Your task to perform on an android device: search for starred emails in the gmail app Image 0: 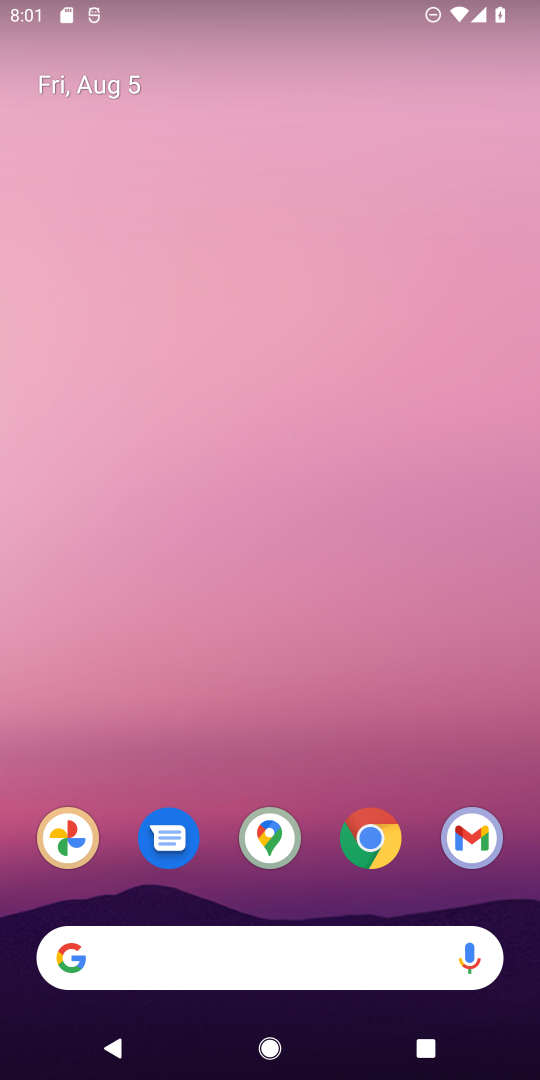
Step 0: press home button
Your task to perform on an android device: search for starred emails in the gmail app Image 1: 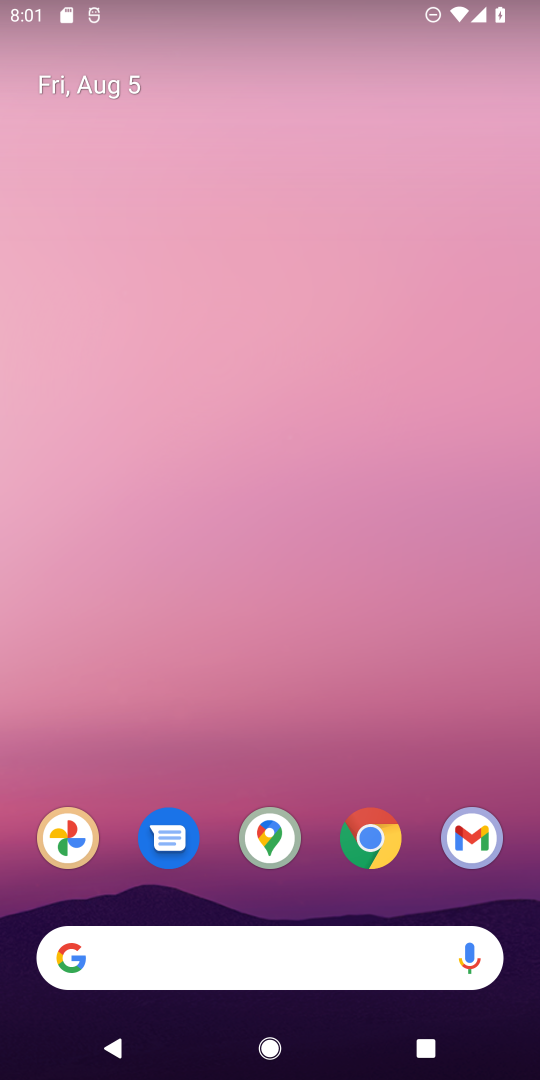
Step 1: drag from (243, 910) to (243, 516)
Your task to perform on an android device: search for starred emails in the gmail app Image 2: 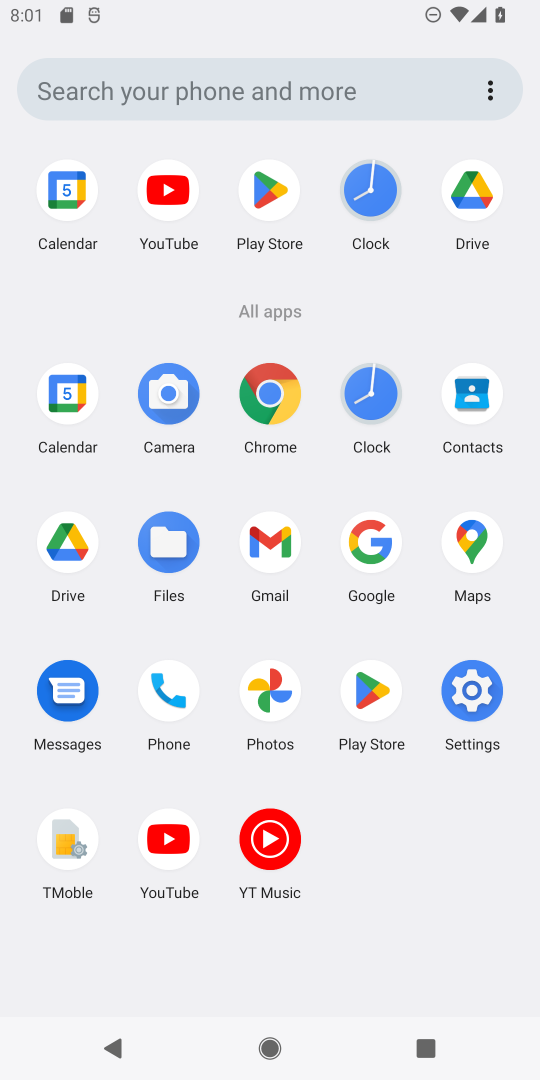
Step 2: click (255, 539)
Your task to perform on an android device: search for starred emails in the gmail app Image 3: 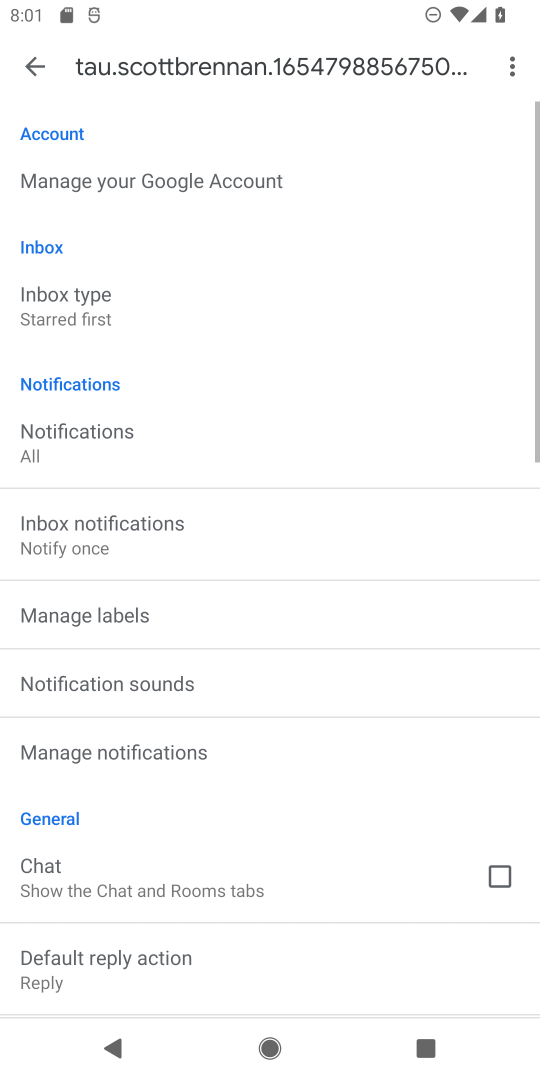
Step 3: click (37, 65)
Your task to perform on an android device: search for starred emails in the gmail app Image 4: 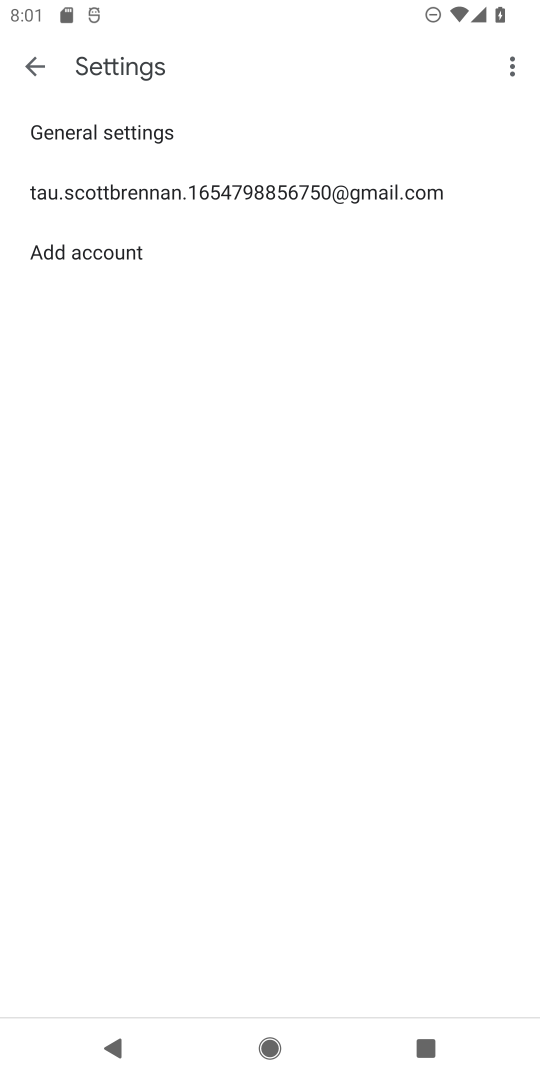
Step 4: click (37, 65)
Your task to perform on an android device: search for starred emails in the gmail app Image 5: 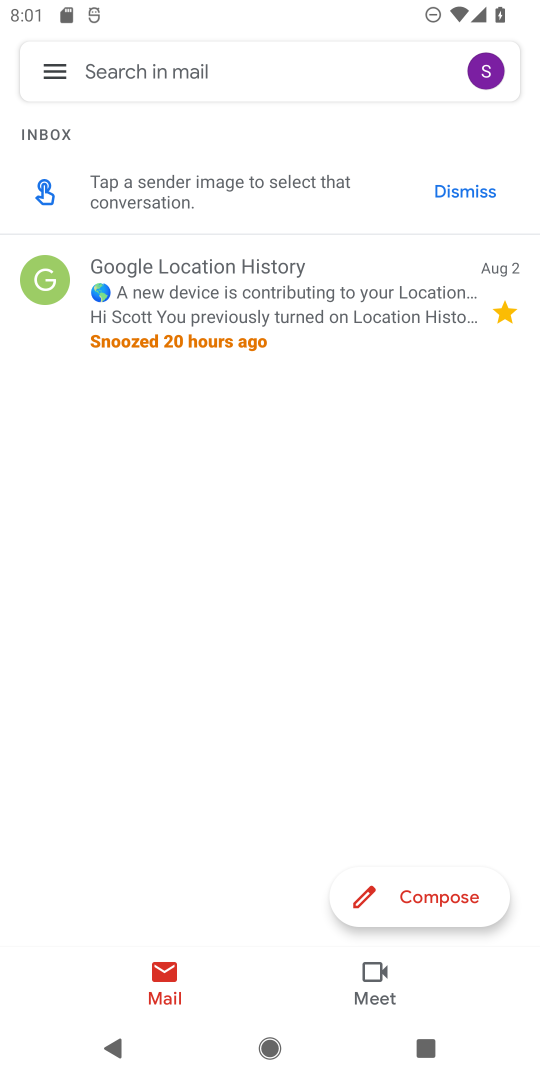
Step 5: click (45, 68)
Your task to perform on an android device: search for starred emails in the gmail app Image 6: 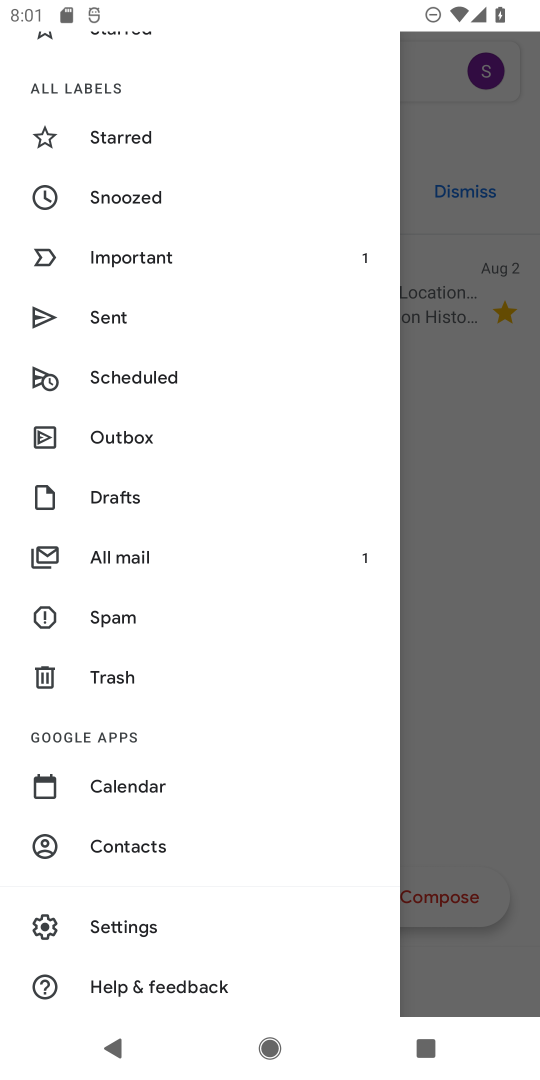
Step 6: click (112, 200)
Your task to perform on an android device: search for starred emails in the gmail app Image 7: 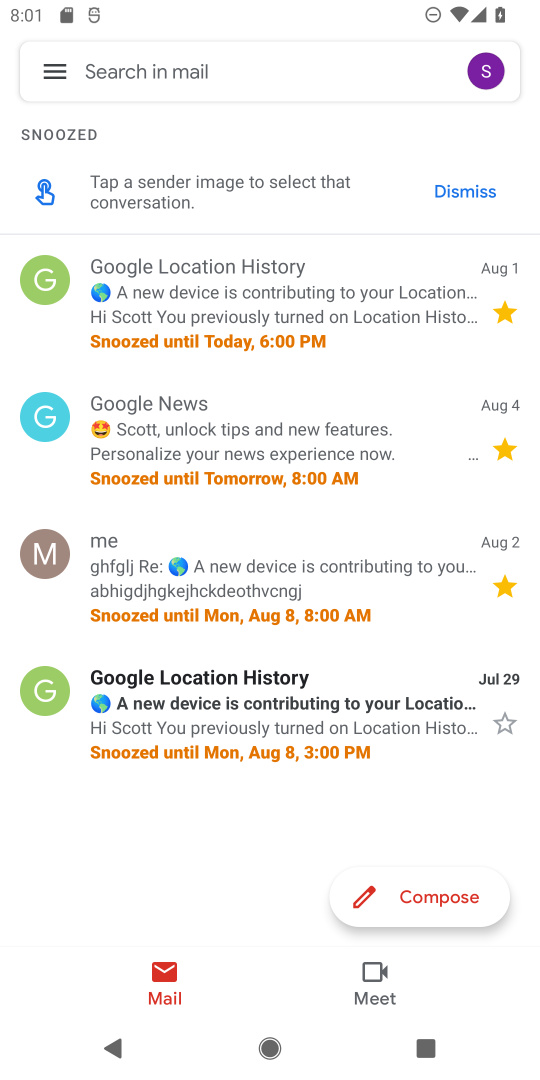
Step 7: click (63, 63)
Your task to perform on an android device: search for starred emails in the gmail app Image 8: 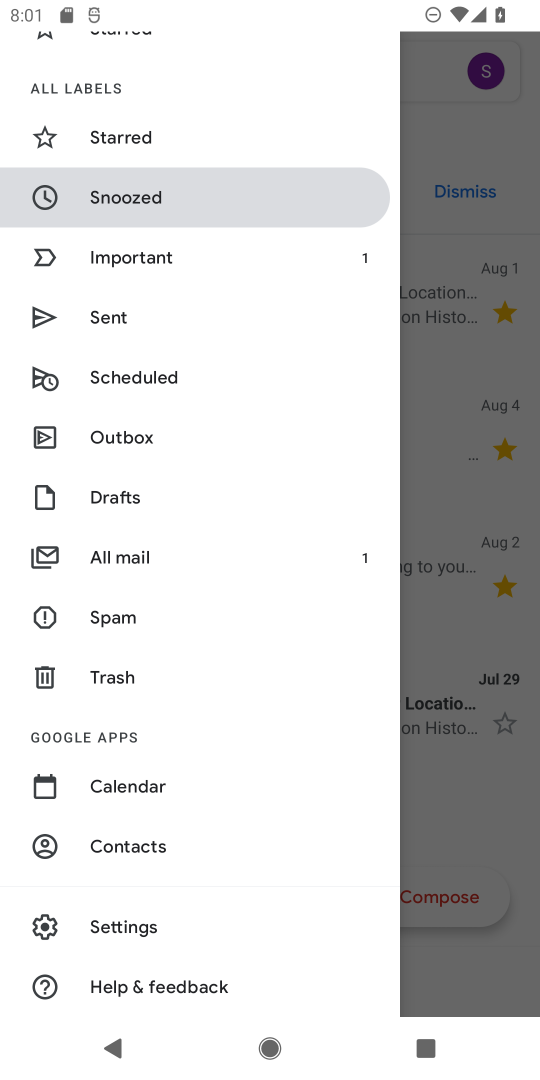
Step 8: click (123, 148)
Your task to perform on an android device: search for starred emails in the gmail app Image 9: 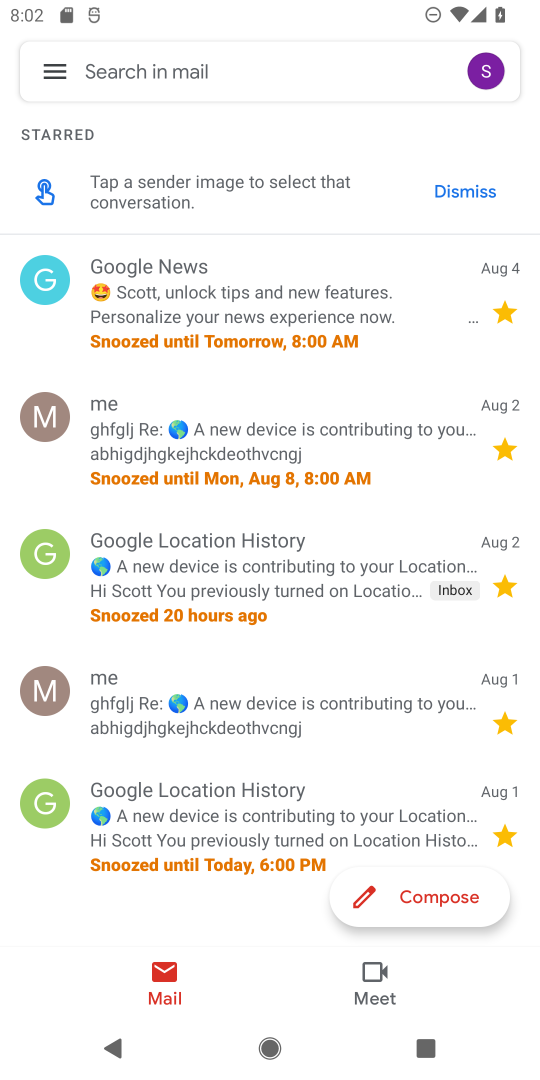
Step 9: task complete